Your task to perform on an android device: Go to location settings Image 0: 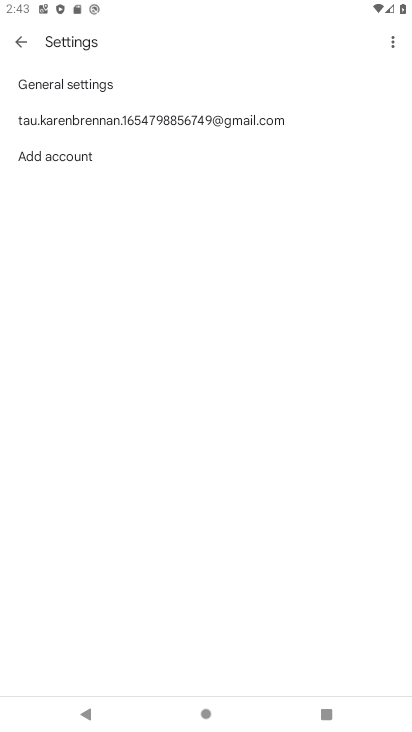
Step 0: task complete